Your task to perform on an android device: turn notification dots off Image 0: 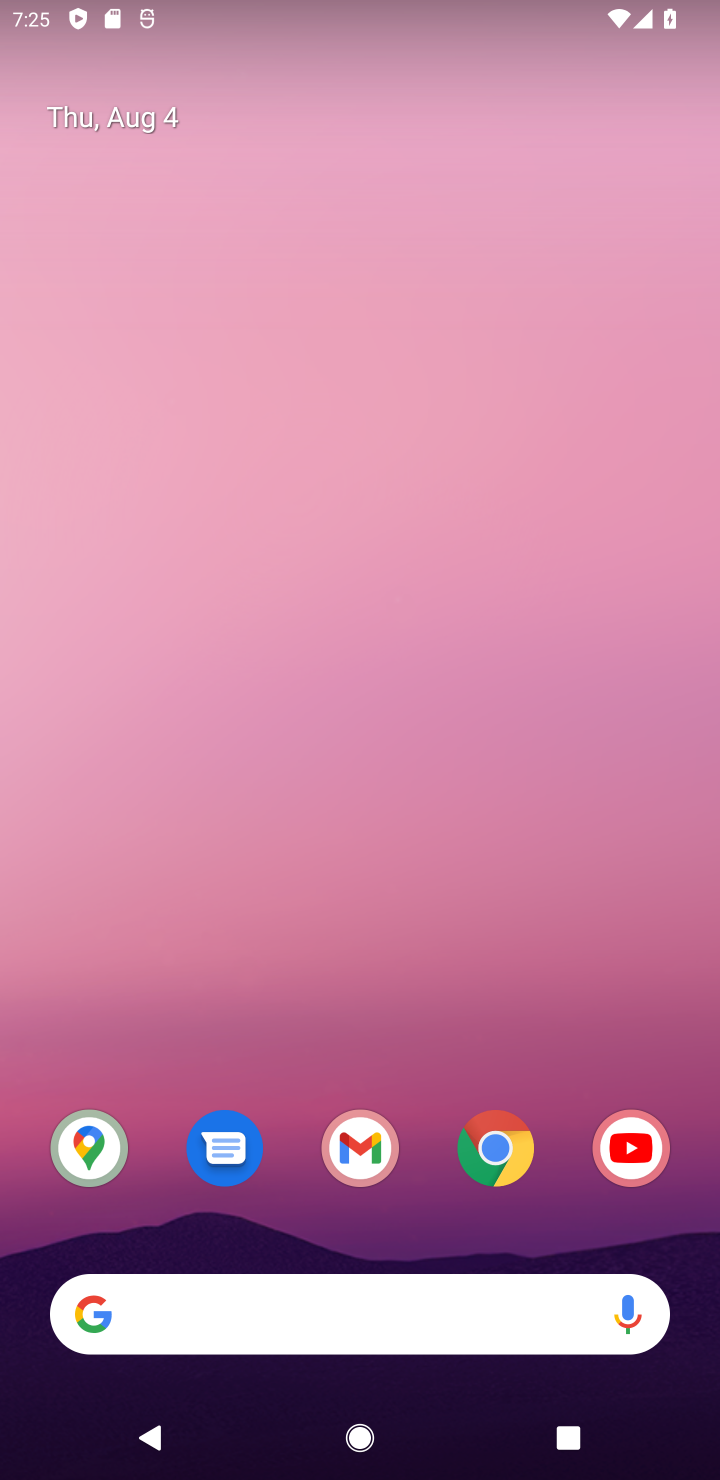
Step 0: drag from (572, 1059) to (520, 77)
Your task to perform on an android device: turn notification dots off Image 1: 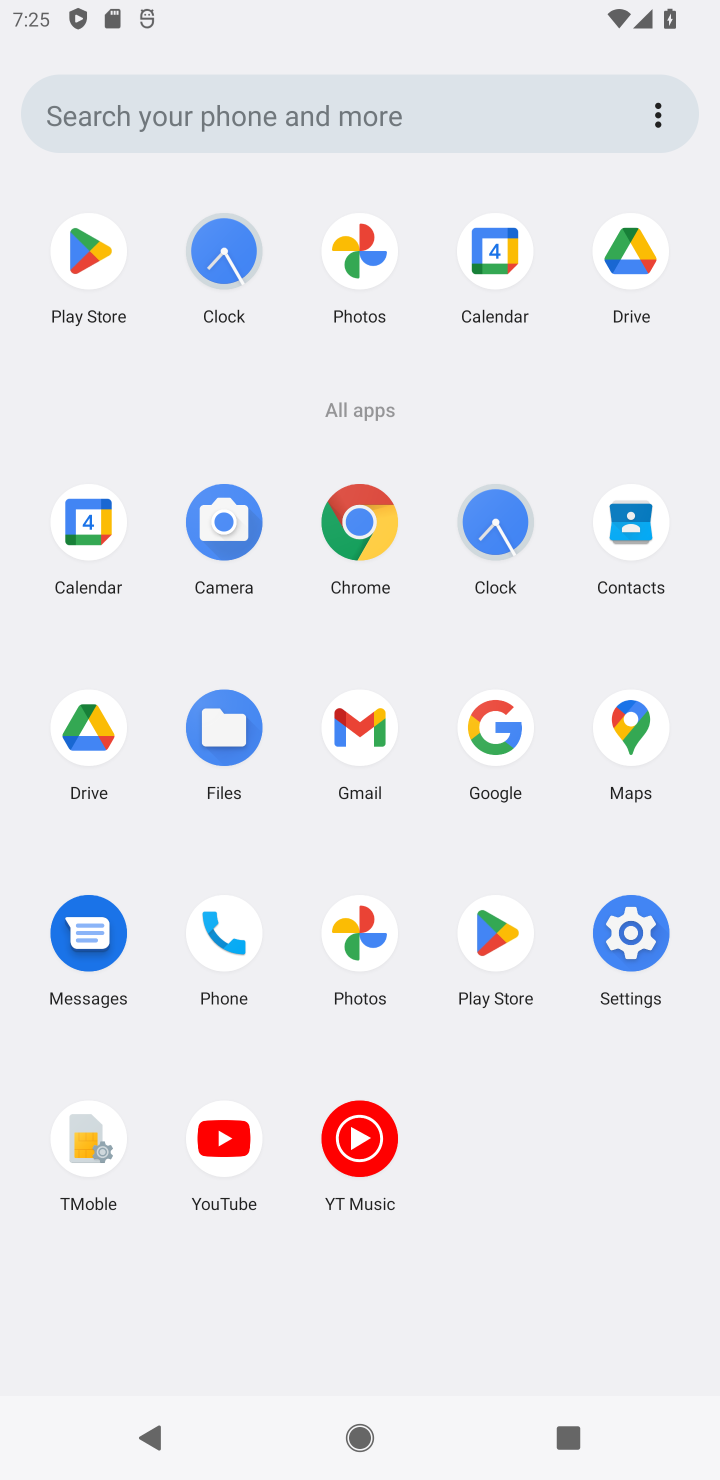
Step 1: click (648, 943)
Your task to perform on an android device: turn notification dots off Image 2: 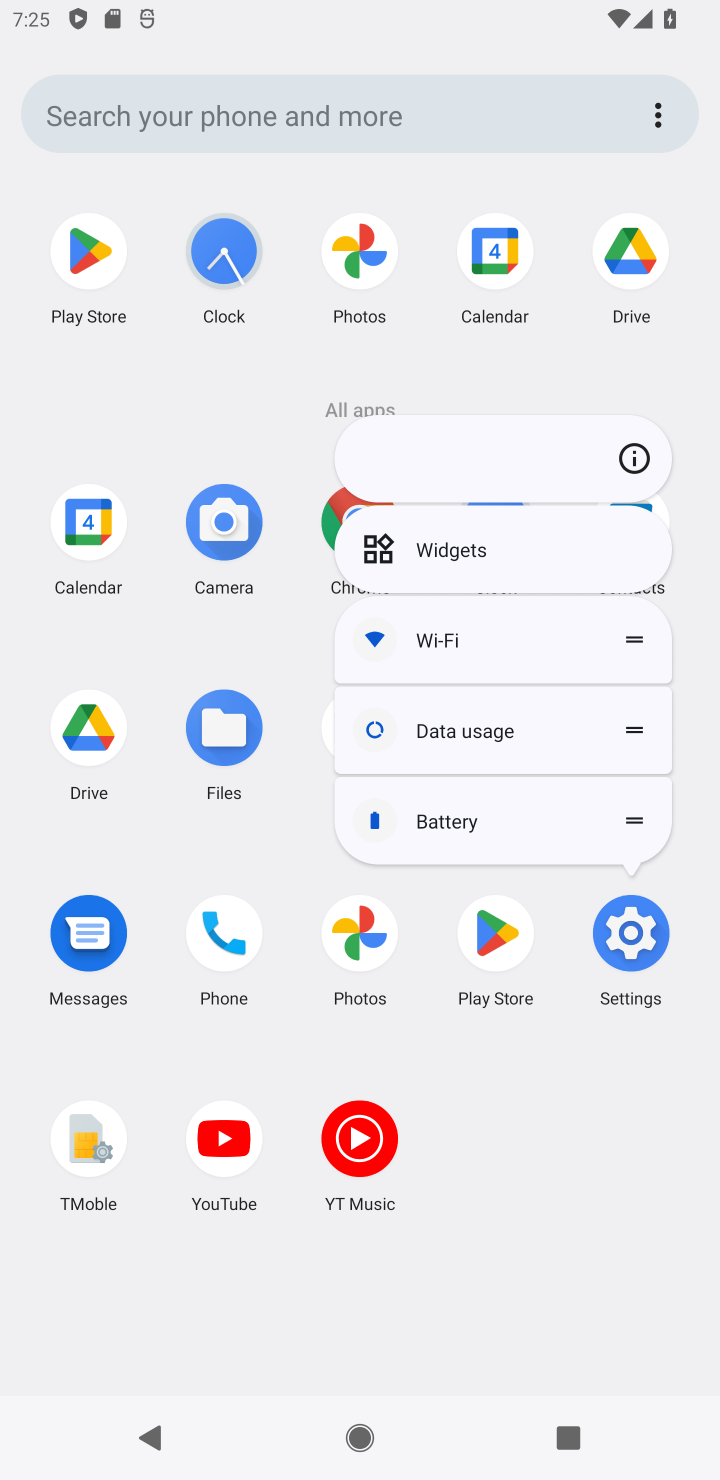
Step 2: click (618, 946)
Your task to perform on an android device: turn notification dots off Image 3: 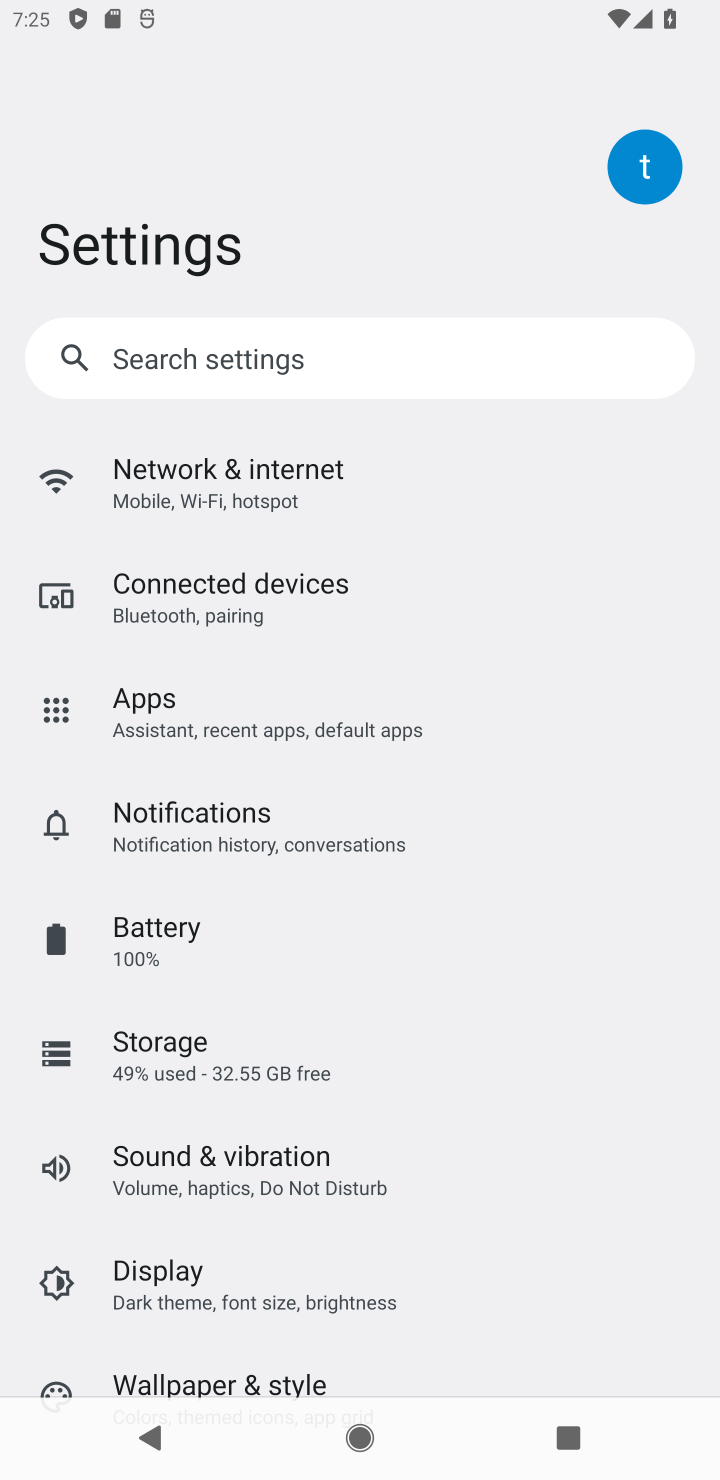
Step 3: drag from (461, 1287) to (426, 551)
Your task to perform on an android device: turn notification dots off Image 4: 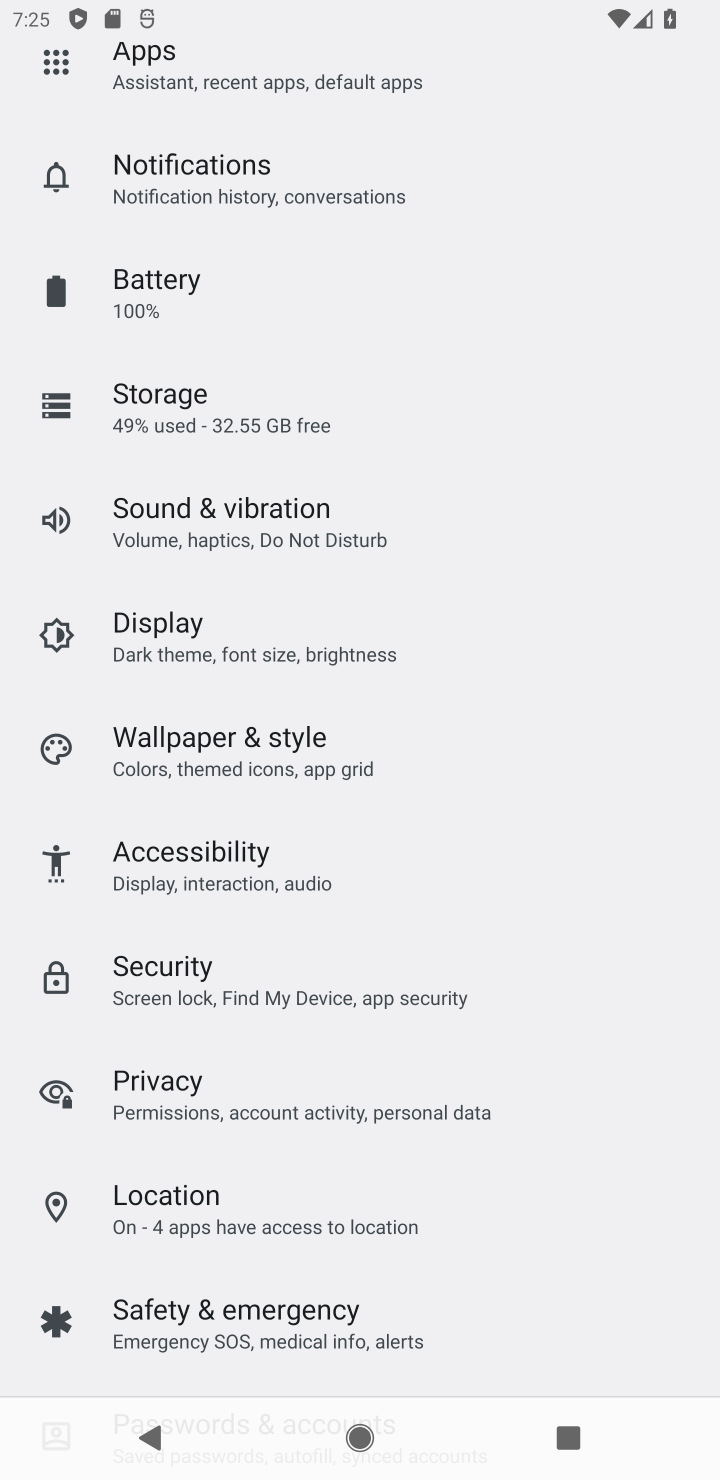
Step 4: click (407, 203)
Your task to perform on an android device: turn notification dots off Image 5: 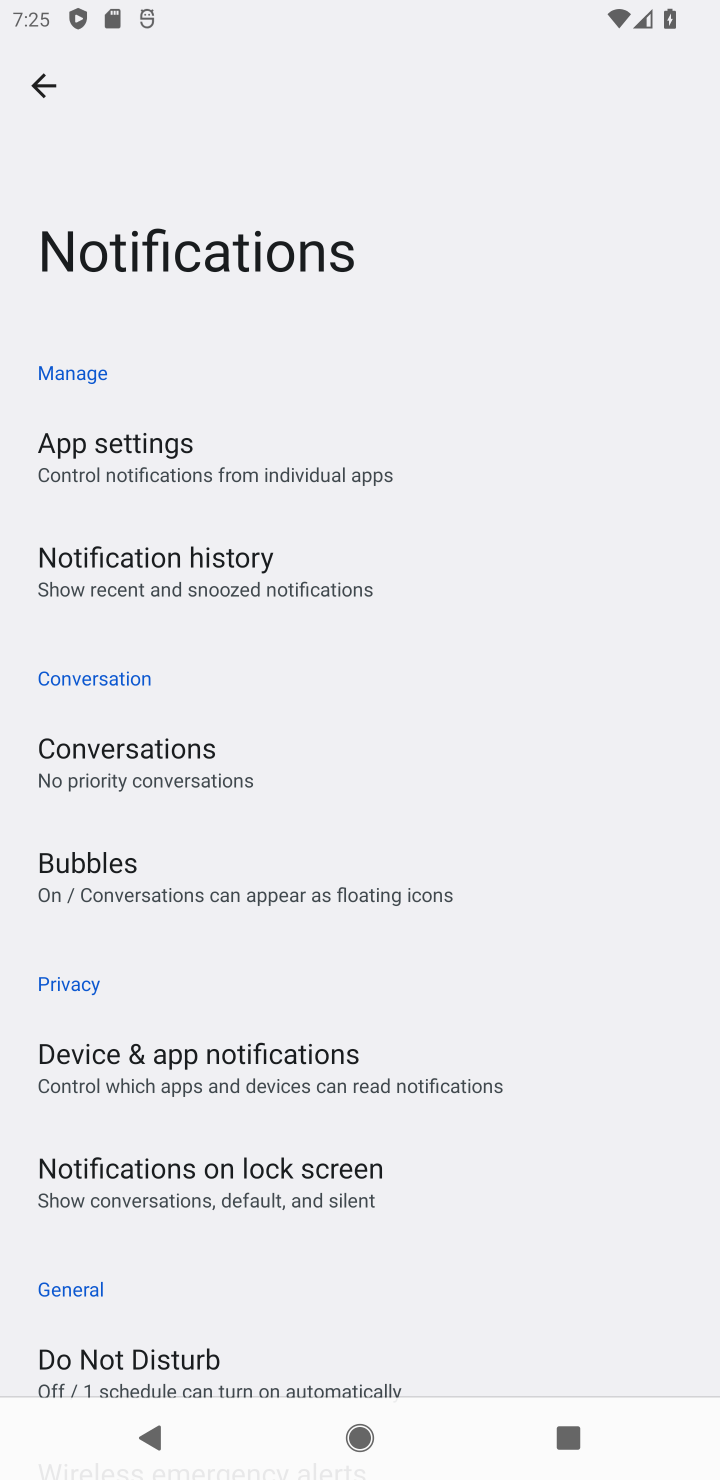
Step 5: task complete